Your task to perform on an android device: Open eBay Image 0: 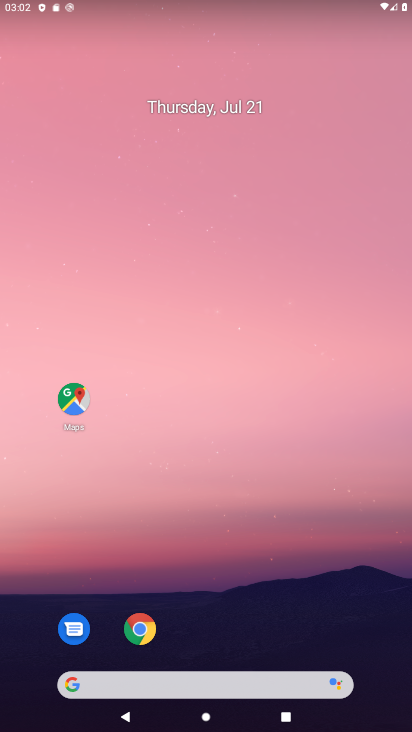
Step 0: click (141, 624)
Your task to perform on an android device: Open eBay Image 1: 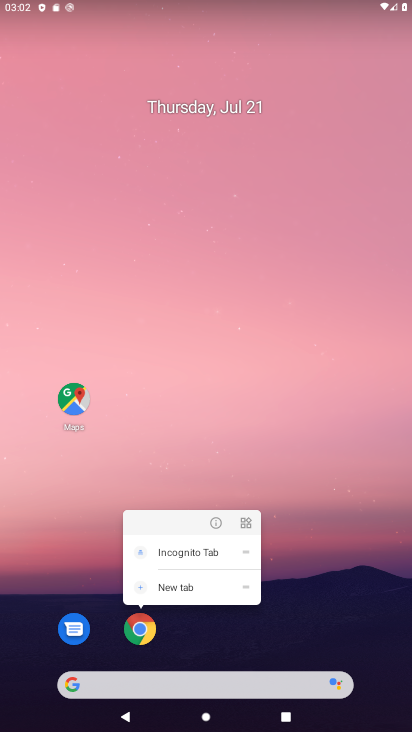
Step 1: click (152, 636)
Your task to perform on an android device: Open eBay Image 2: 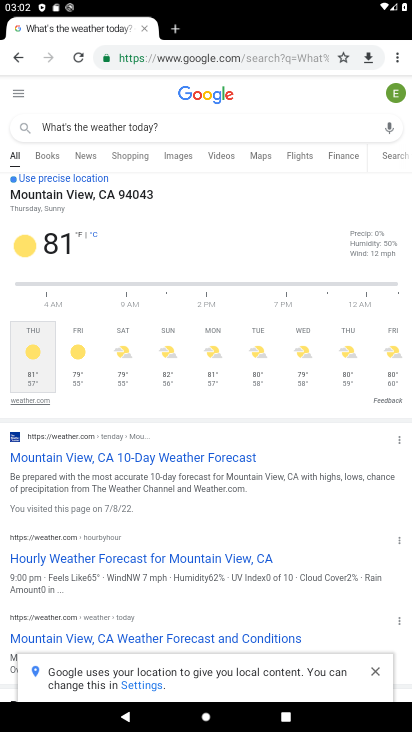
Step 2: click (264, 64)
Your task to perform on an android device: Open eBay Image 3: 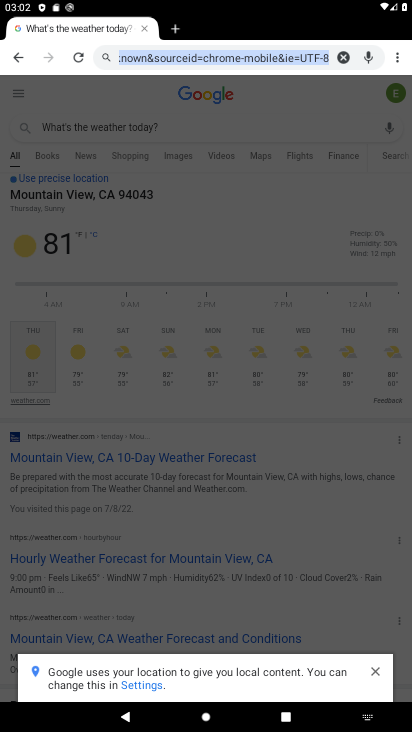
Step 3: type "eBay"
Your task to perform on an android device: Open eBay Image 4: 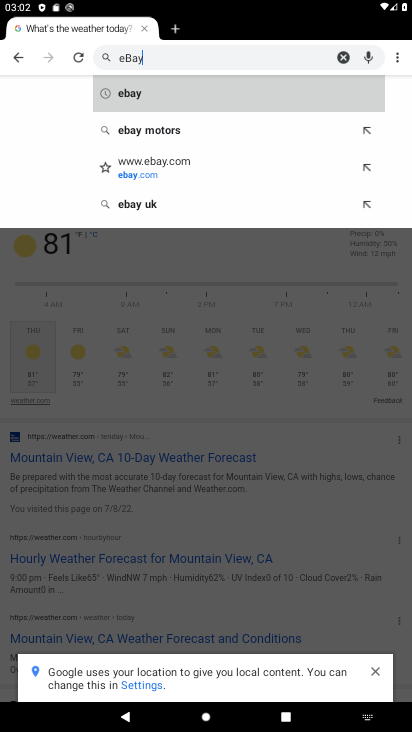
Step 4: click (150, 161)
Your task to perform on an android device: Open eBay Image 5: 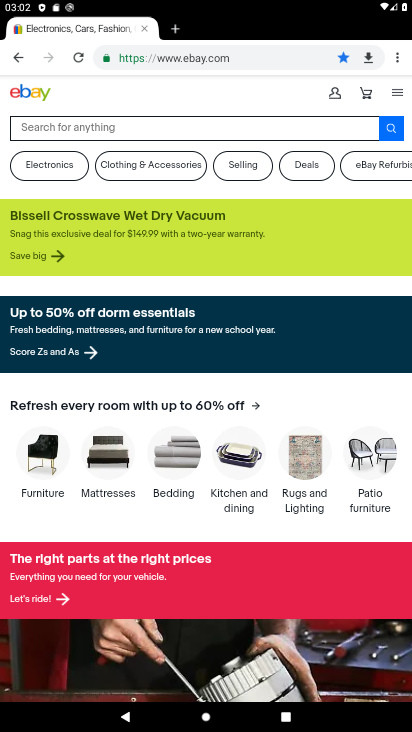
Step 5: task complete